Your task to perform on an android device: Go to internet settings Image 0: 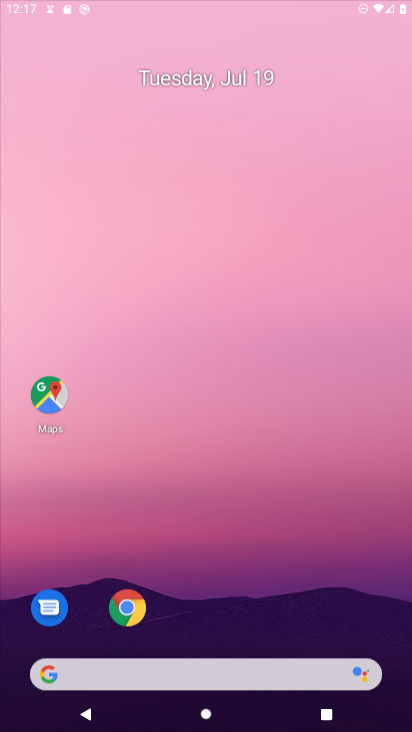
Step 0: drag from (324, 669) to (337, 132)
Your task to perform on an android device: Go to internet settings Image 1: 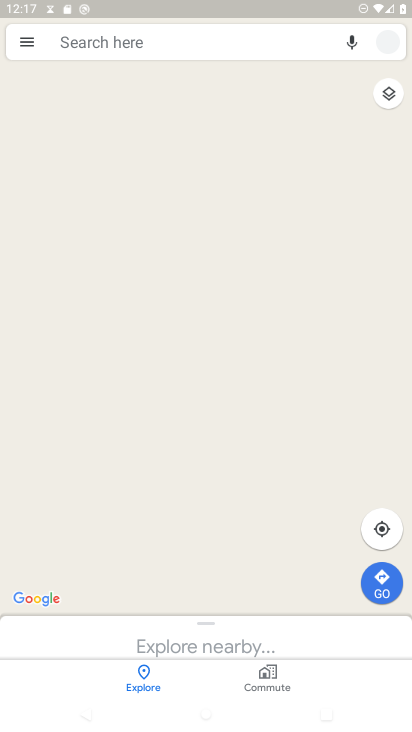
Step 1: press home button
Your task to perform on an android device: Go to internet settings Image 2: 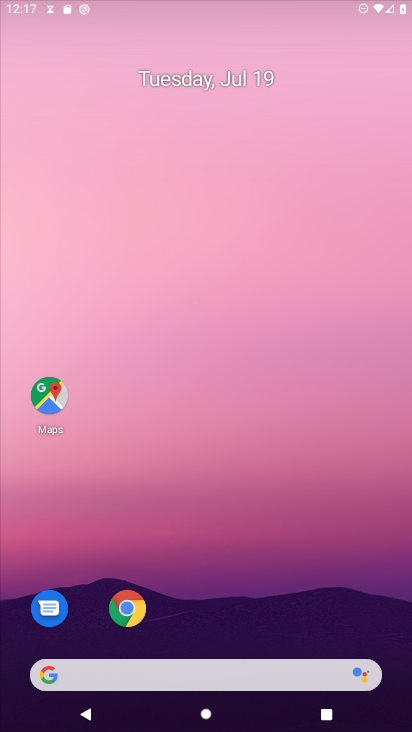
Step 2: drag from (230, 638) to (296, 116)
Your task to perform on an android device: Go to internet settings Image 3: 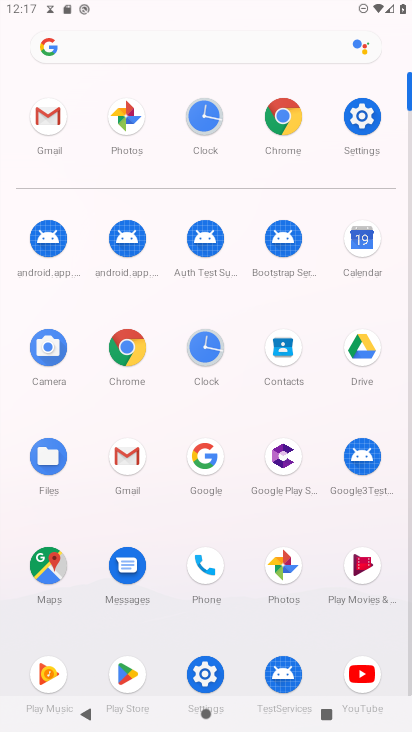
Step 3: click (376, 116)
Your task to perform on an android device: Go to internet settings Image 4: 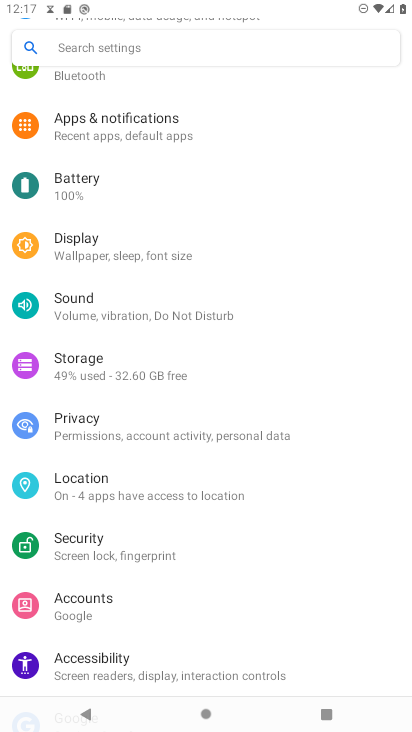
Step 4: drag from (159, 182) to (127, 615)
Your task to perform on an android device: Go to internet settings Image 5: 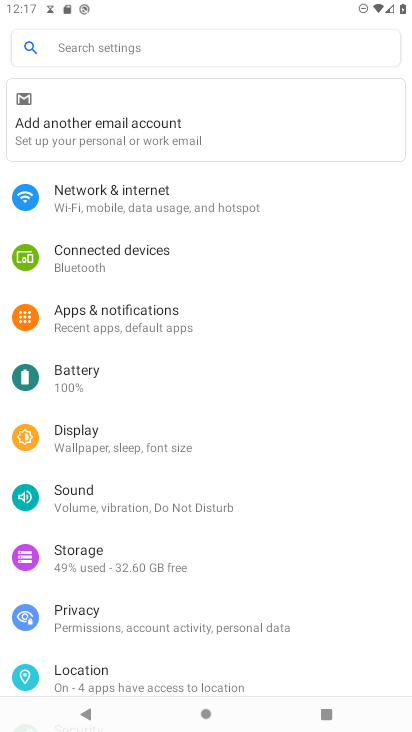
Step 5: click (157, 199)
Your task to perform on an android device: Go to internet settings Image 6: 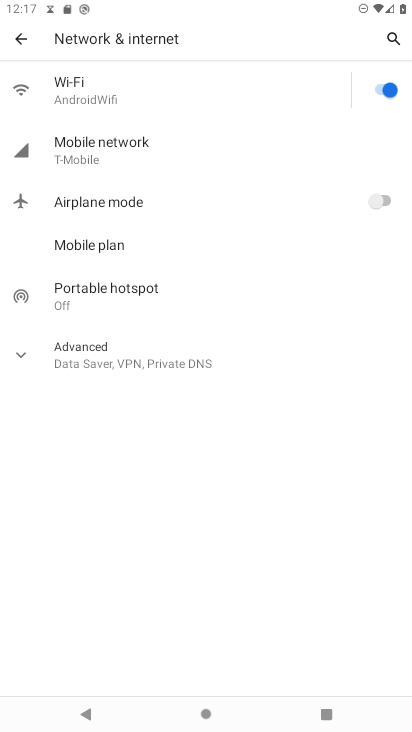
Step 6: task complete